Your task to perform on an android device: change the clock style Image 0: 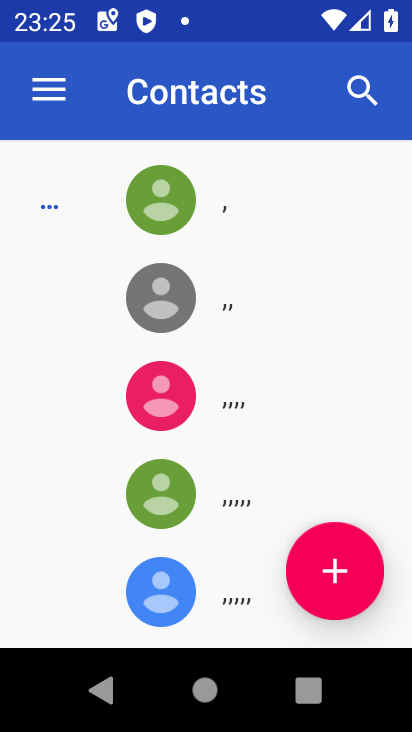
Step 0: press home button
Your task to perform on an android device: change the clock style Image 1: 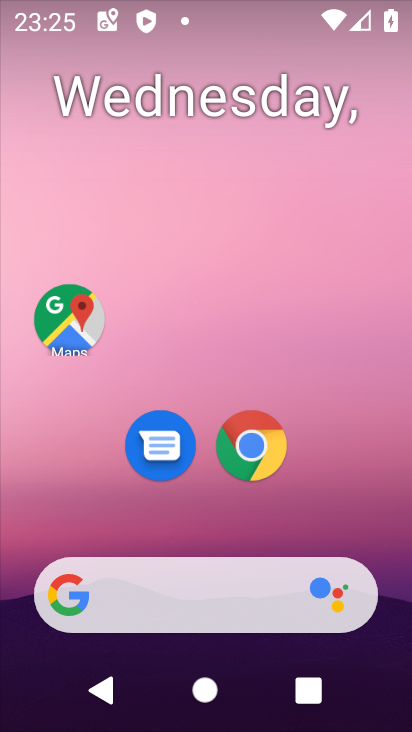
Step 1: drag from (323, 520) to (303, 153)
Your task to perform on an android device: change the clock style Image 2: 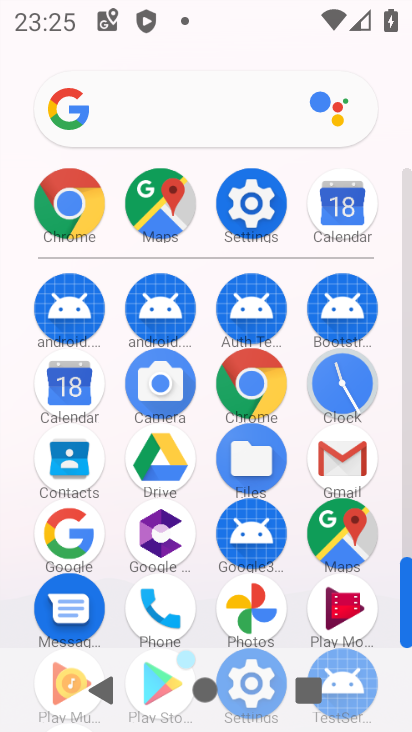
Step 2: click (347, 380)
Your task to perform on an android device: change the clock style Image 3: 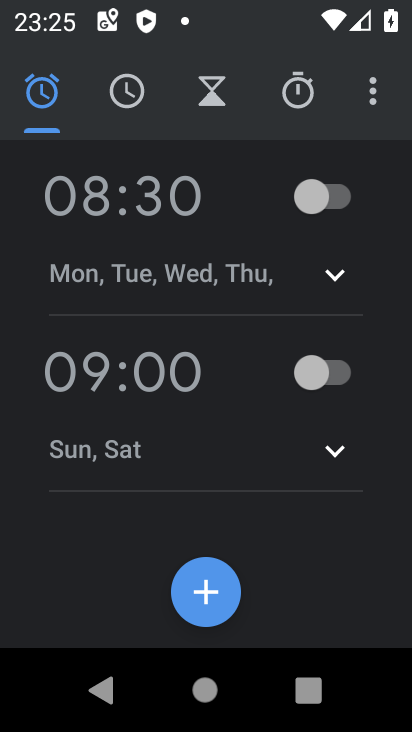
Step 3: click (371, 75)
Your task to perform on an android device: change the clock style Image 4: 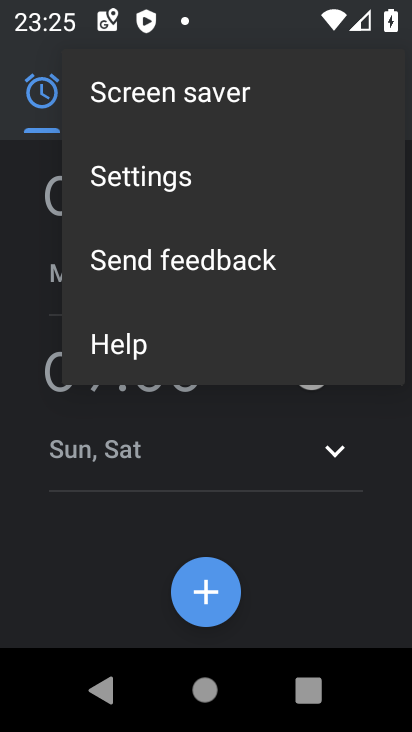
Step 4: click (169, 165)
Your task to perform on an android device: change the clock style Image 5: 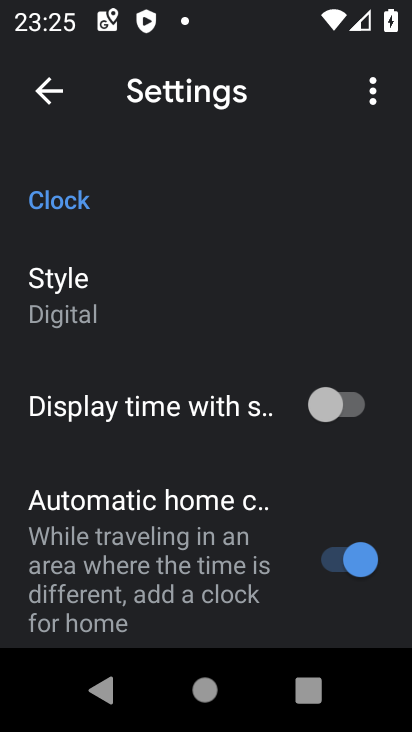
Step 5: click (102, 310)
Your task to perform on an android device: change the clock style Image 6: 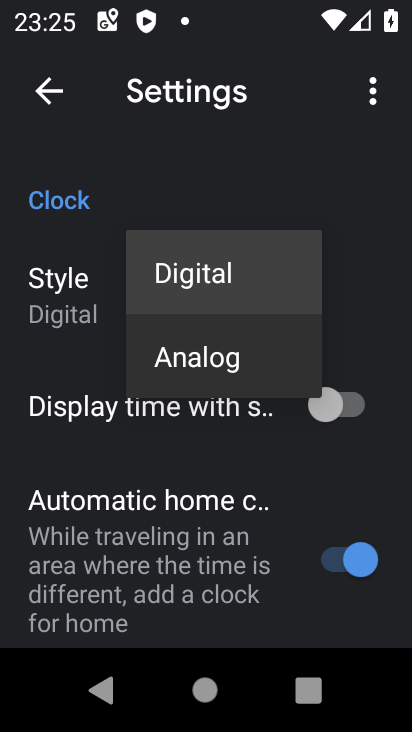
Step 6: click (157, 349)
Your task to perform on an android device: change the clock style Image 7: 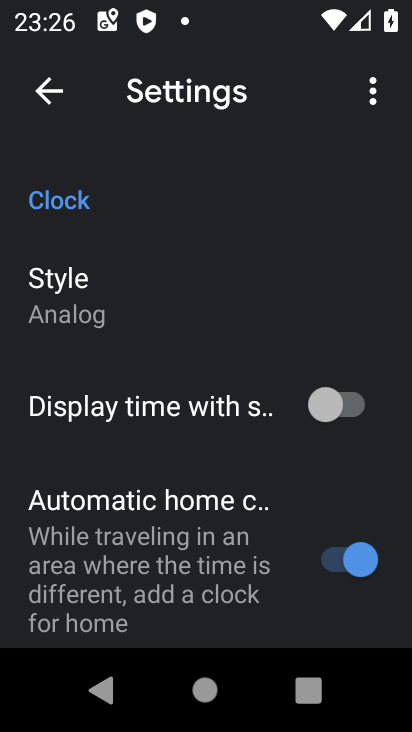
Step 7: task complete